Your task to perform on an android device: Open my contact list Image 0: 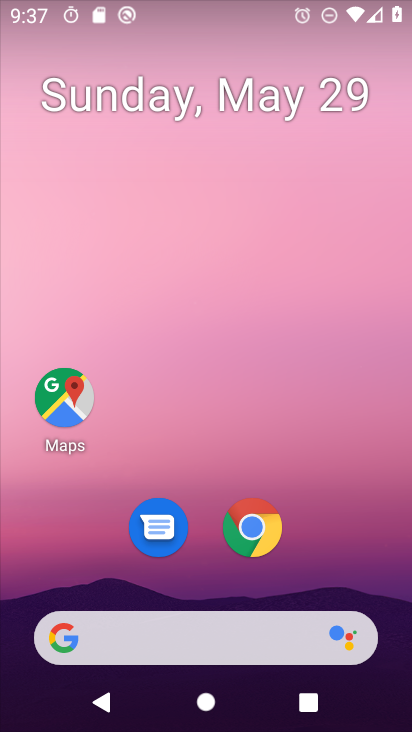
Step 0: drag from (375, 621) to (328, 30)
Your task to perform on an android device: Open my contact list Image 1: 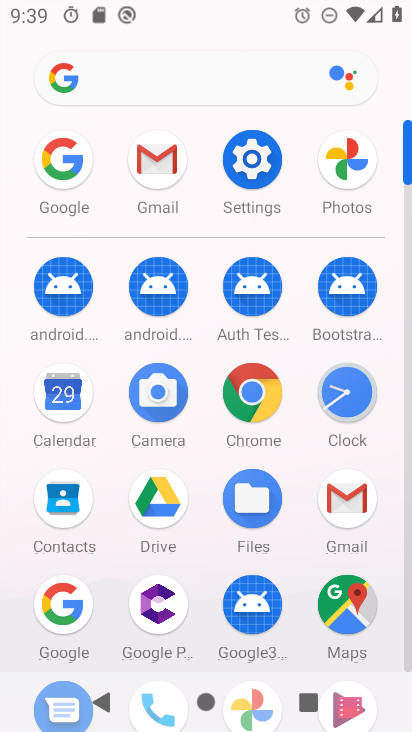
Step 1: click (54, 504)
Your task to perform on an android device: Open my contact list Image 2: 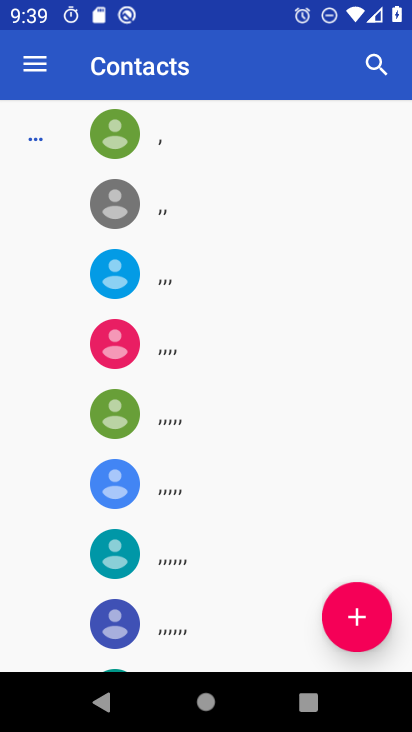
Step 2: task complete